Your task to perform on an android device: add a contact in the contacts app Image 0: 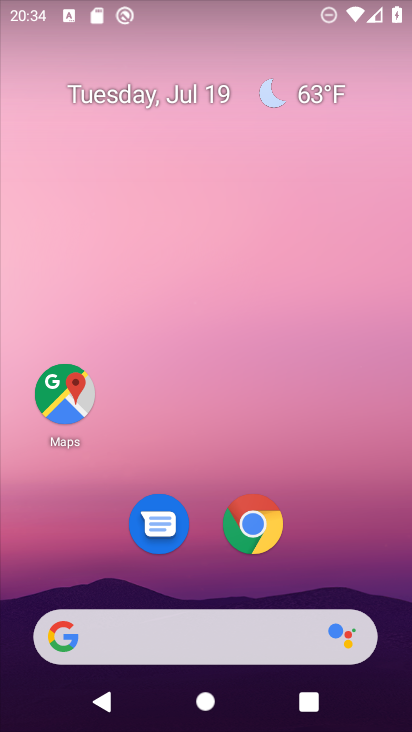
Step 0: drag from (298, 415) to (275, 38)
Your task to perform on an android device: add a contact in the contacts app Image 1: 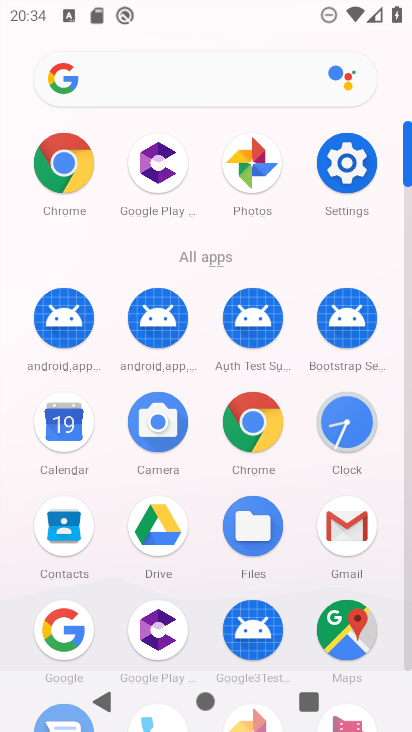
Step 1: click (75, 523)
Your task to perform on an android device: add a contact in the contacts app Image 2: 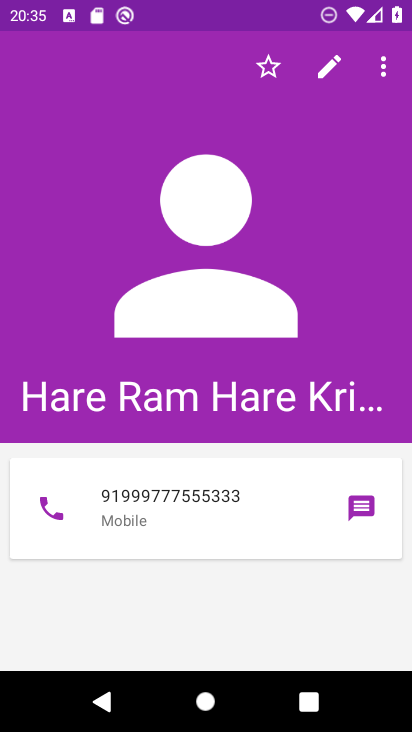
Step 2: press back button
Your task to perform on an android device: add a contact in the contacts app Image 3: 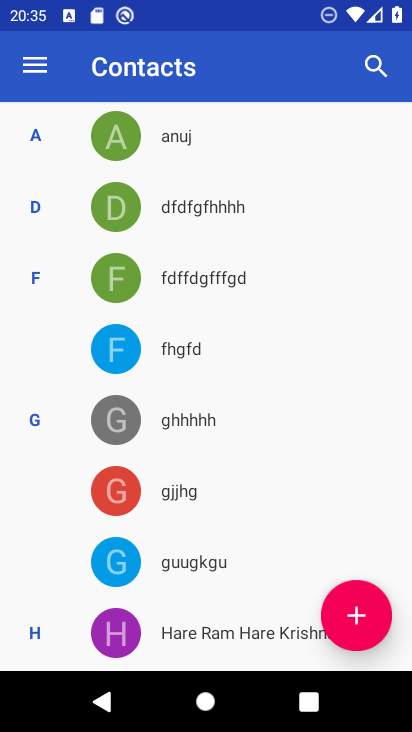
Step 3: click (362, 611)
Your task to perform on an android device: add a contact in the contacts app Image 4: 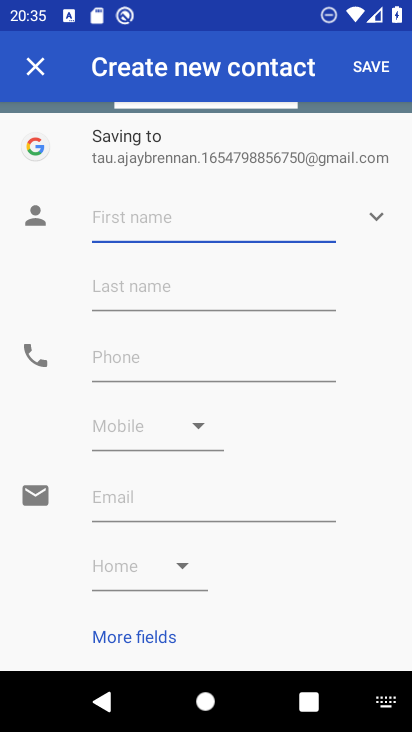
Step 4: type "Shivoaham"
Your task to perform on an android device: add a contact in the contacts app Image 5: 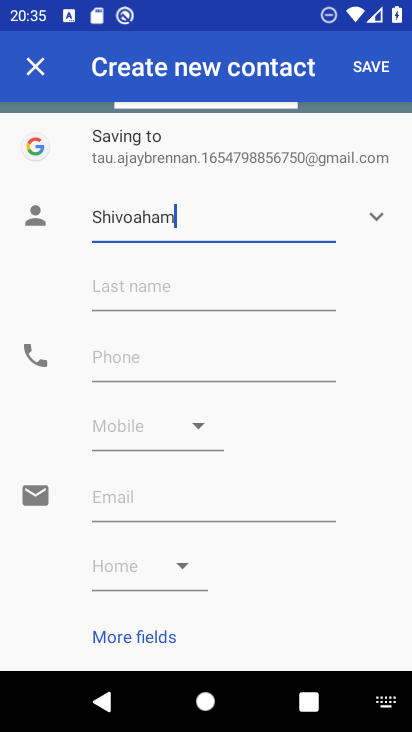
Step 5: click (229, 364)
Your task to perform on an android device: add a contact in the contacts app Image 6: 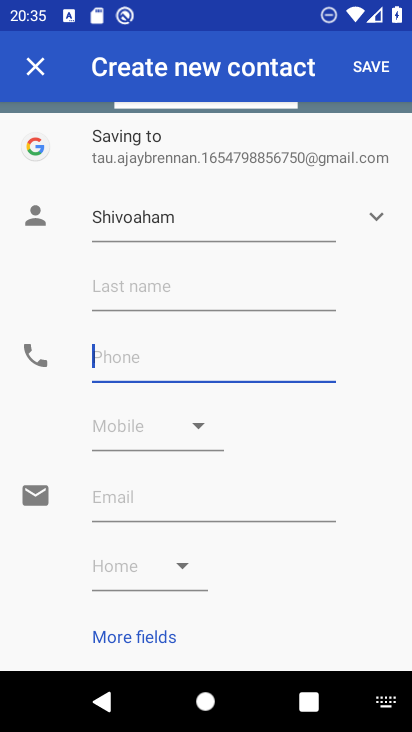
Step 6: type "9990000001"
Your task to perform on an android device: add a contact in the contacts app Image 7: 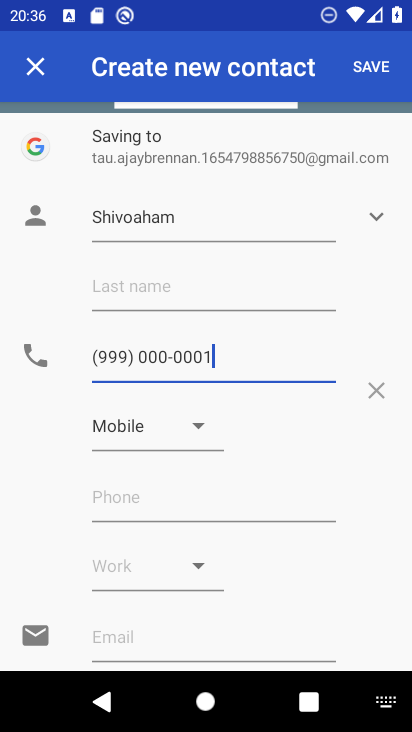
Step 7: click (373, 67)
Your task to perform on an android device: add a contact in the contacts app Image 8: 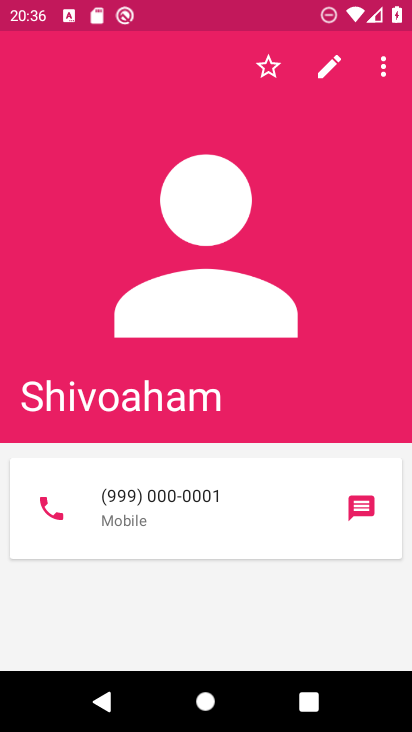
Step 8: task complete